Your task to perform on an android device: toggle translation in the chrome app Image 0: 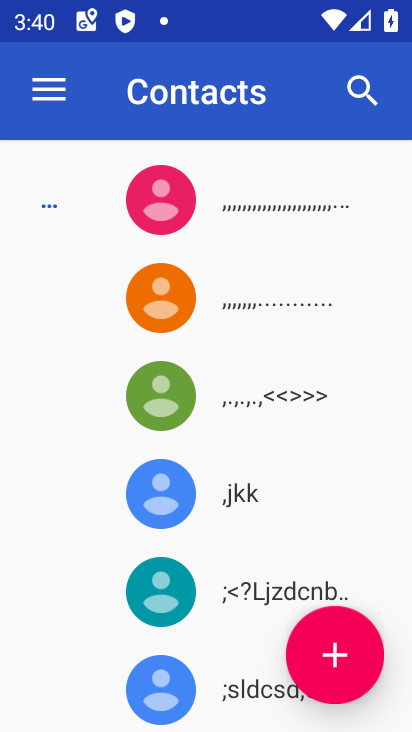
Step 0: press home button
Your task to perform on an android device: toggle translation in the chrome app Image 1: 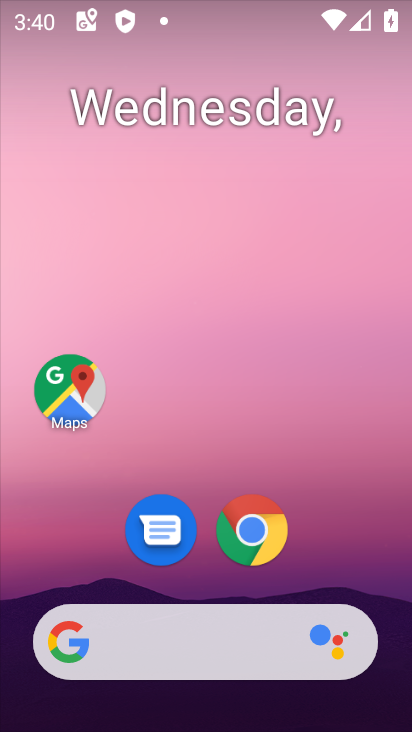
Step 1: drag from (318, 529) to (404, 337)
Your task to perform on an android device: toggle translation in the chrome app Image 2: 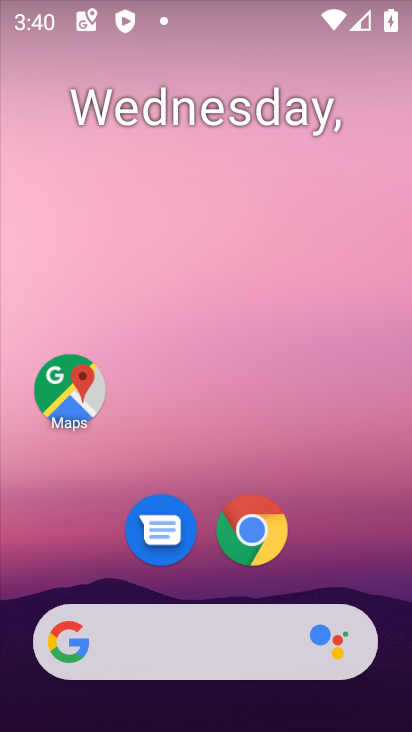
Step 2: drag from (142, 429) to (186, 2)
Your task to perform on an android device: toggle translation in the chrome app Image 3: 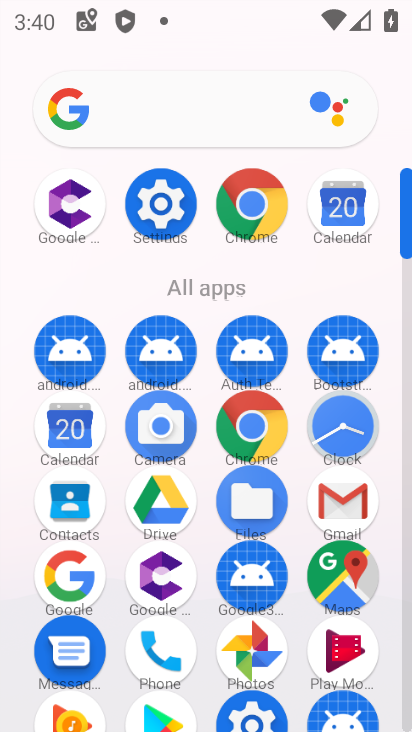
Step 3: click (255, 411)
Your task to perform on an android device: toggle translation in the chrome app Image 4: 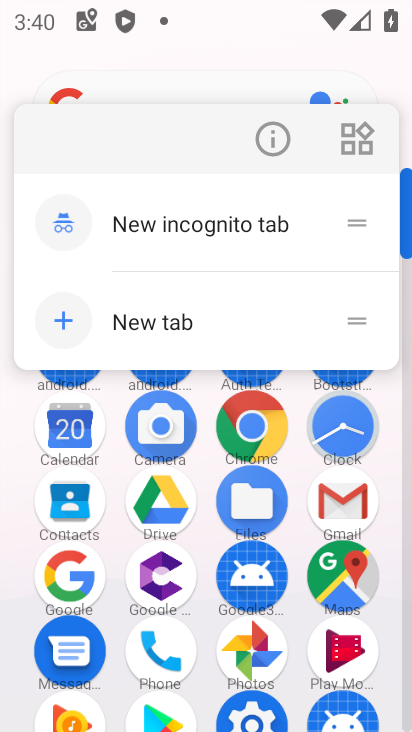
Step 4: click (254, 436)
Your task to perform on an android device: toggle translation in the chrome app Image 5: 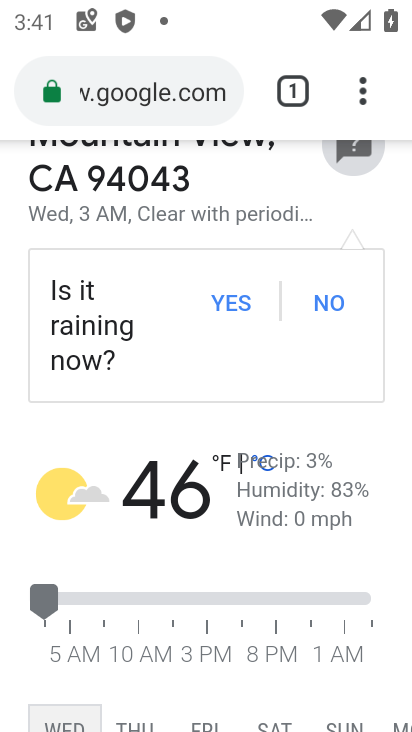
Step 5: drag from (365, 93) to (90, 562)
Your task to perform on an android device: toggle translation in the chrome app Image 6: 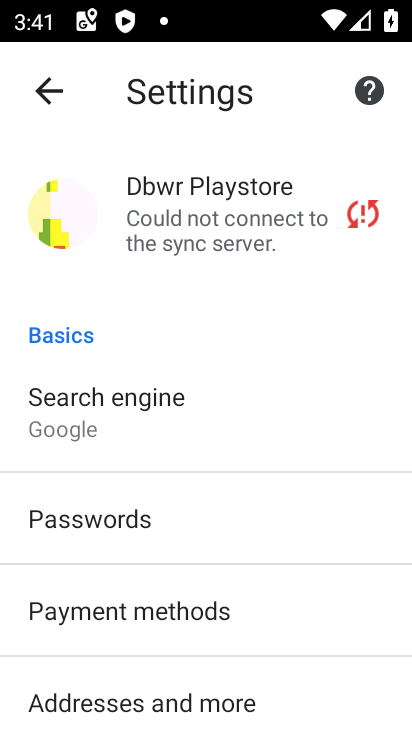
Step 6: drag from (362, 447) to (368, 360)
Your task to perform on an android device: toggle translation in the chrome app Image 7: 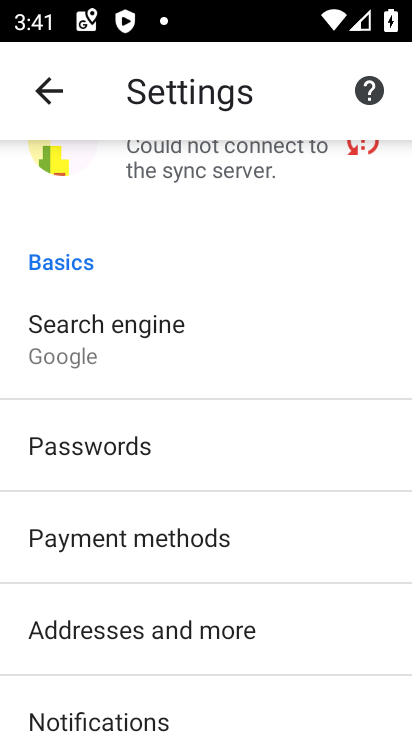
Step 7: drag from (347, 694) to (365, 481)
Your task to perform on an android device: toggle translation in the chrome app Image 8: 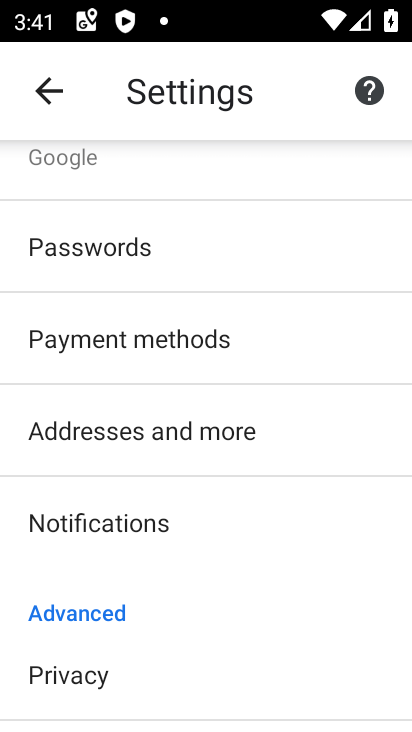
Step 8: drag from (331, 683) to (366, 346)
Your task to perform on an android device: toggle translation in the chrome app Image 9: 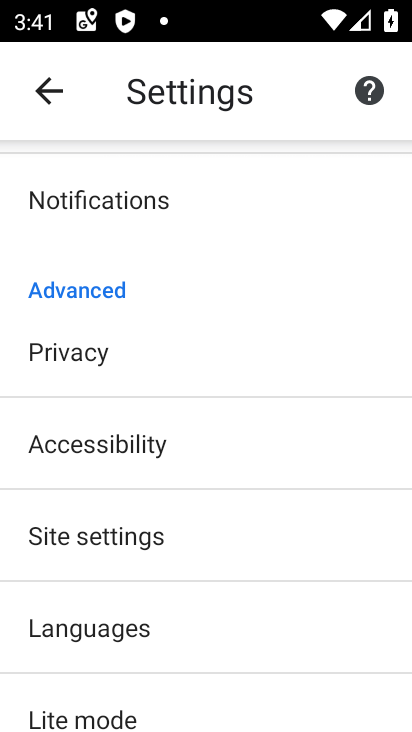
Step 9: click (109, 622)
Your task to perform on an android device: toggle translation in the chrome app Image 10: 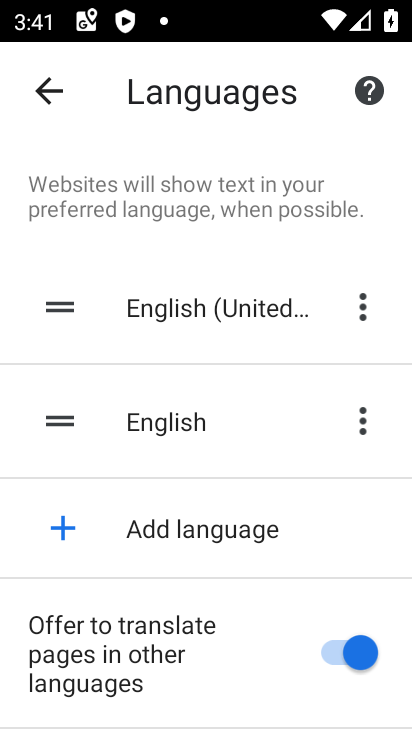
Step 10: click (336, 650)
Your task to perform on an android device: toggle translation in the chrome app Image 11: 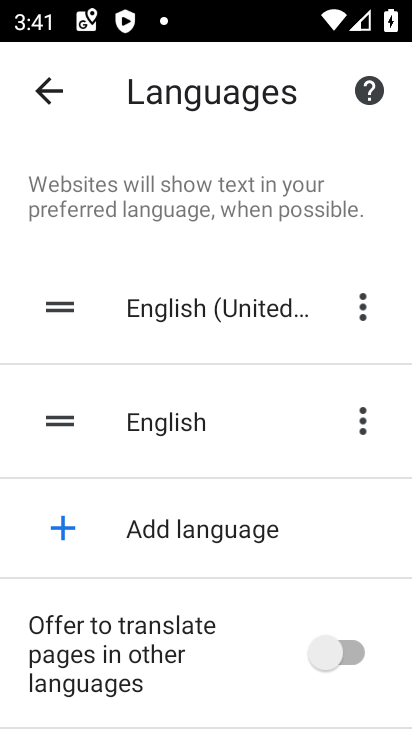
Step 11: task complete